Your task to perform on an android device: Check the news Image 0: 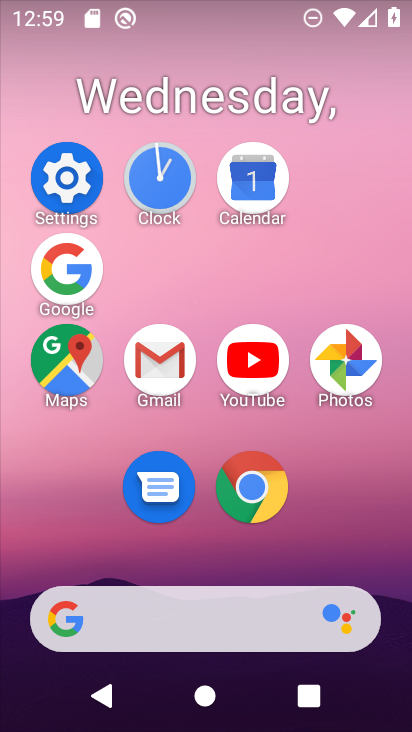
Step 0: click (87, 287)
Your task to perform on an android device: Check the news Image 1: 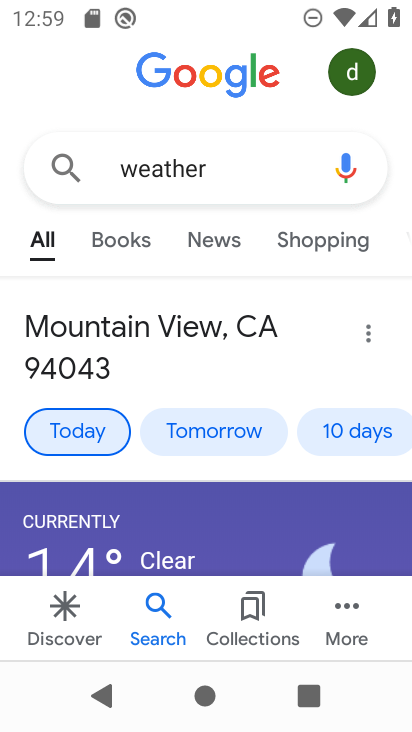
Step 1: click (239, 169)
Your task to perform on an android device: Check the news Image 2: 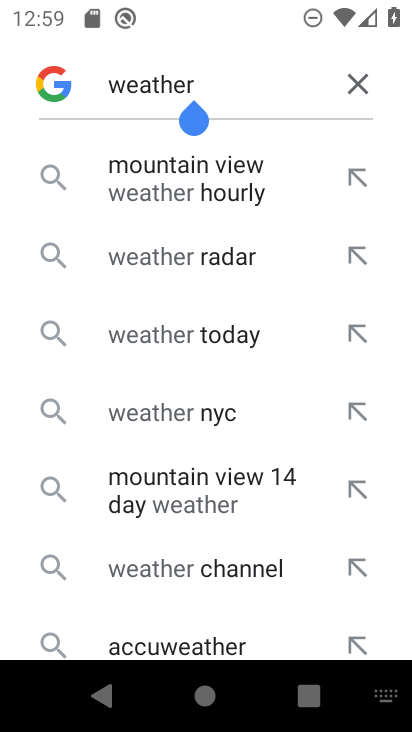
Step 2: click (352, 73)
Your task to perform on an android device: Check the news Image 3: 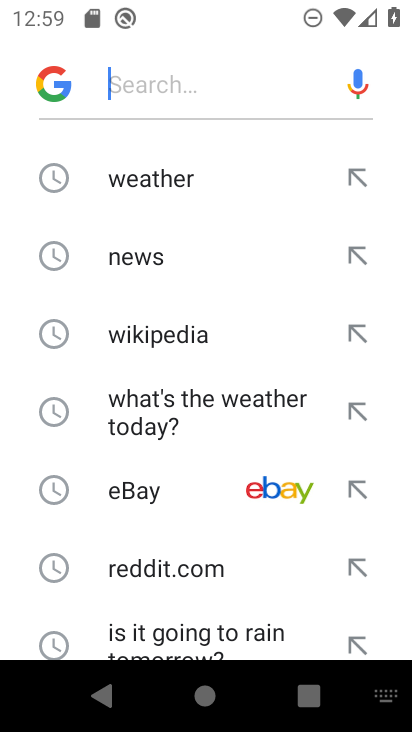
Step 3: click (131, 249)
Your task to perform on an android device: Check the news Image 4: 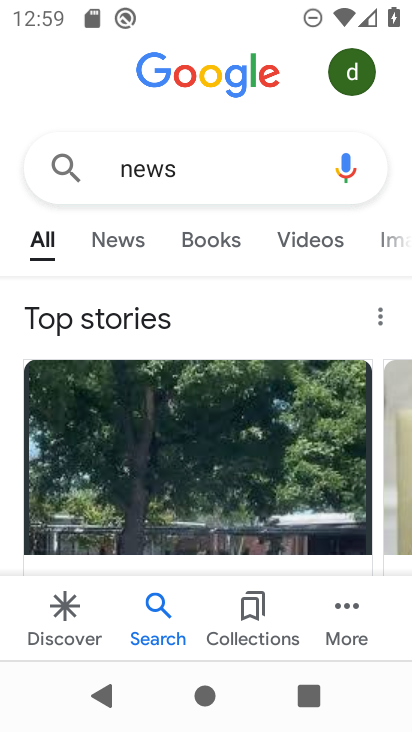
Step 4: task complete